Your task to perform on an android device: What's the weather going to be this weekend? Image 0: 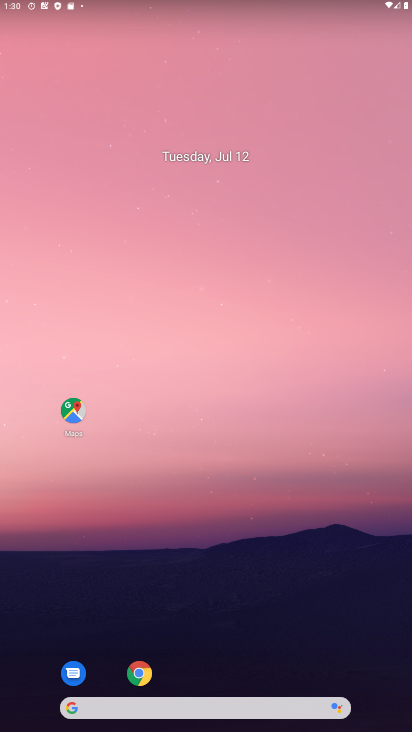
Step 0: drag from (287, 638) to (399, 111)
Your task to perform on an android device: What's the weather going to be this weekend? Image 1: 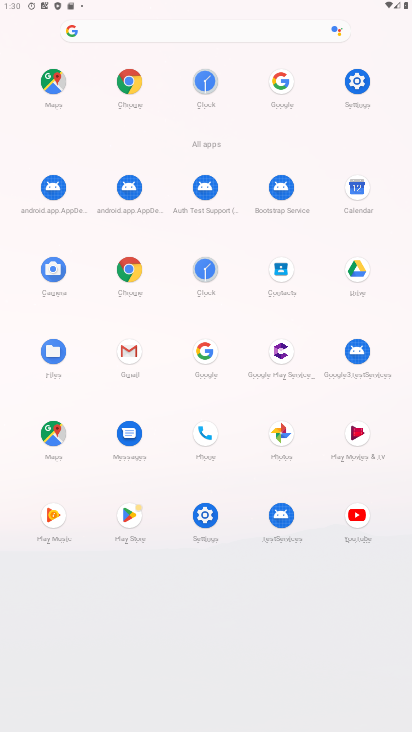
Step 1: click (276, 88)
Your task to perform on an android device: What's the weather going to be this weekend? Image 2: 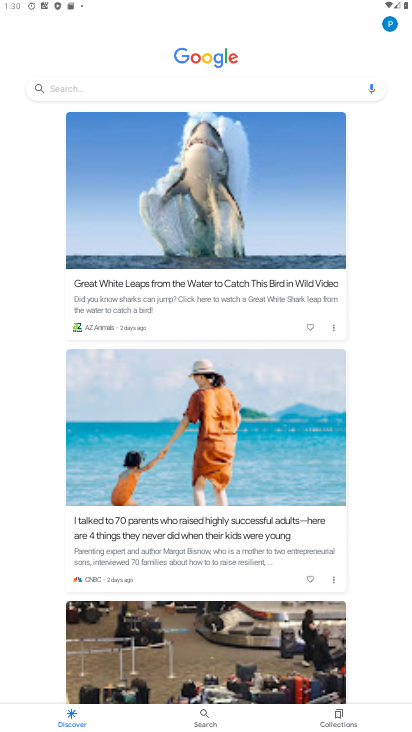
Step 2: drag from (276, 88) to (319, 511)
Your task to perform on an android device: What's the weather going to be this weekend? Image 3: 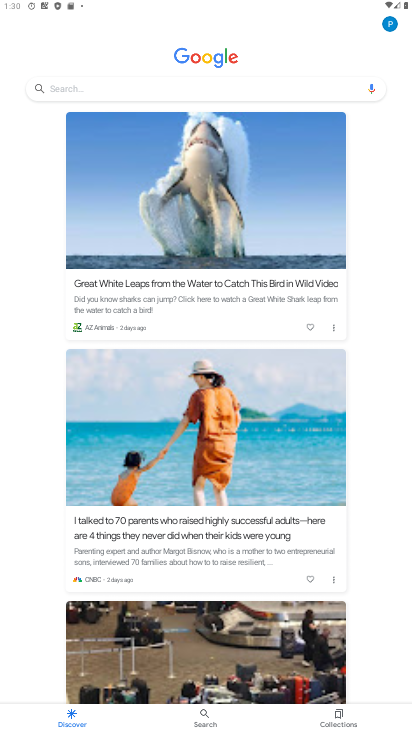
Step 3: drag from (382, 267) to (411, 447)
Your task to perform on an android device: What's the weather going to be this weekend? Image 4: 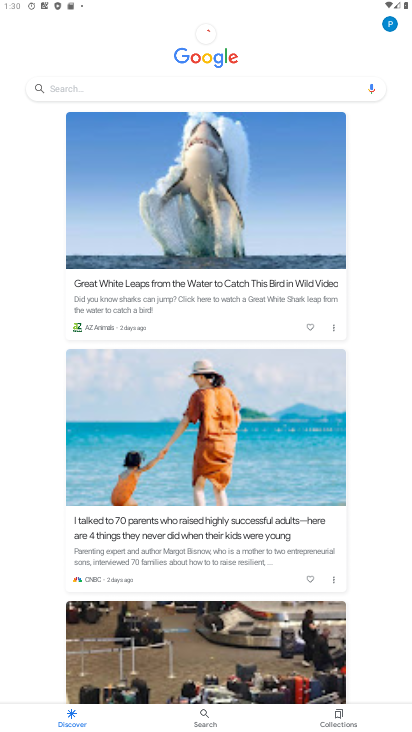
Step 4: click (280, 92)
Your task to perform on an android device: What's the weather going to be this weekend? Image 5: 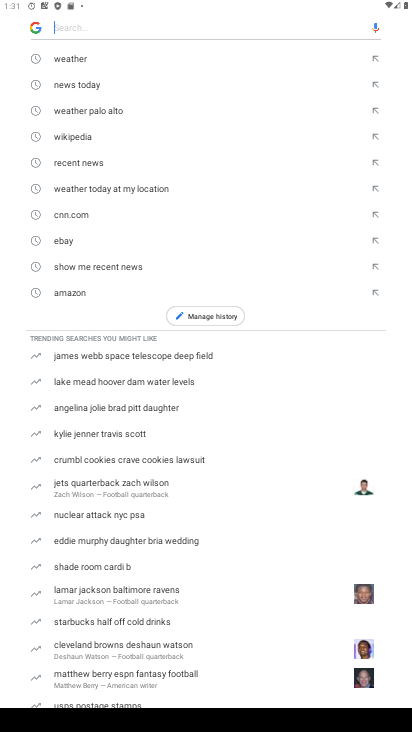
Step 5: click (62, 61)
Your task to perform on an android device: What's the weather going to be this weekend? Image 6: 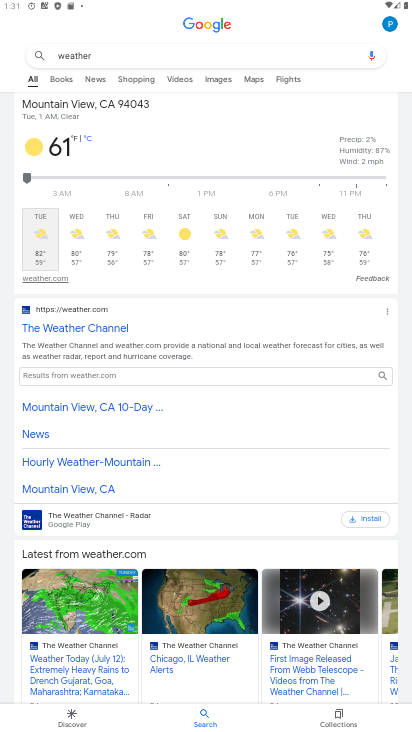
Step 6: task complete